Your task to perform on an android device: Go to privacy settings Image 0: 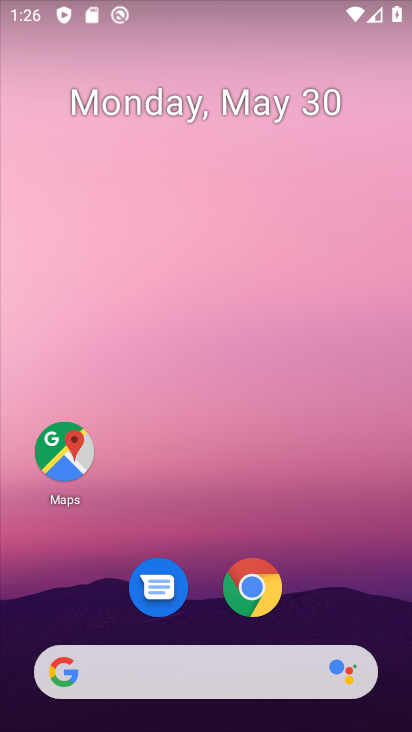
Step 0: drag from (111, 713) to (119, 70)
Your task to perform on an android device: Go to privacy settings Image 1: 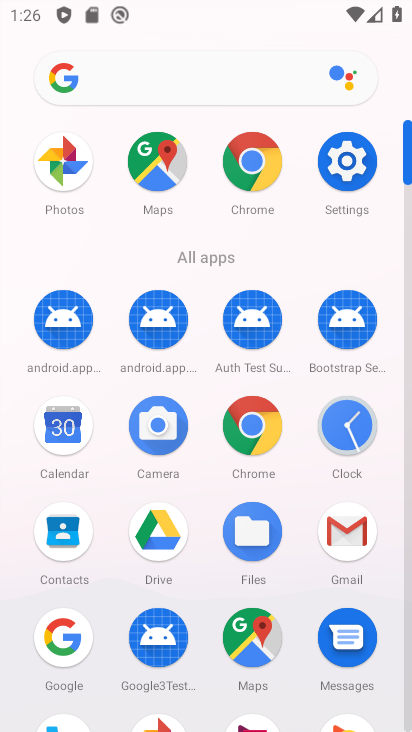
Step 1: click (356, 181)
Your task to perform on an android device: Go to privacy settings Image 2: 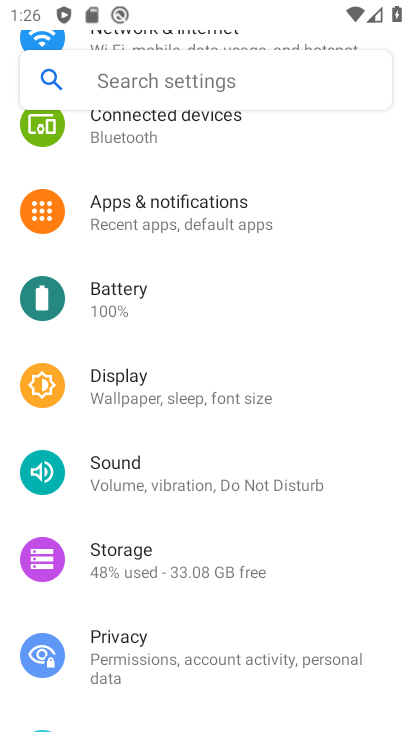
Step 2: click (131, 659)
Your task to perform on an android device: Go to privacy settings Image 3: 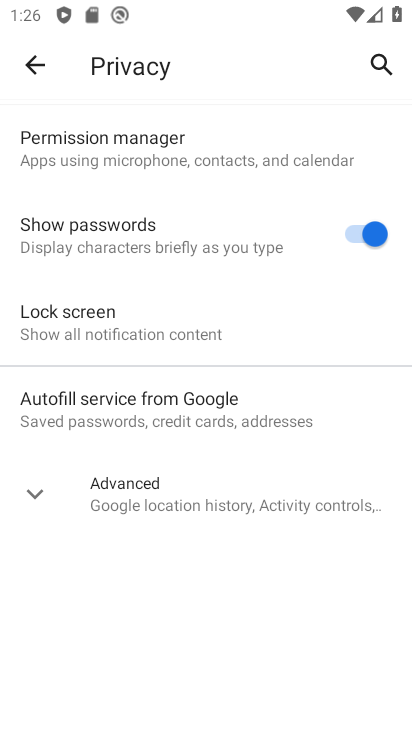
Step 3: task complete